Your task to perform on an android device: find snoozed emails in the gmail app Image 0: 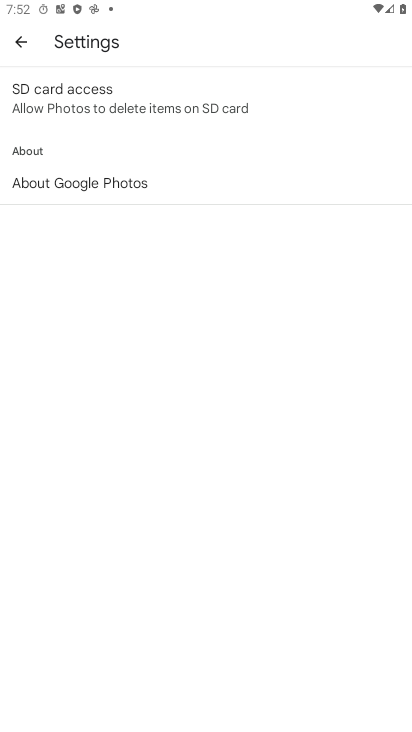
Step 0: press home button
Your task to perform on an android device: find snoozed emails in the gmail app Image 1: 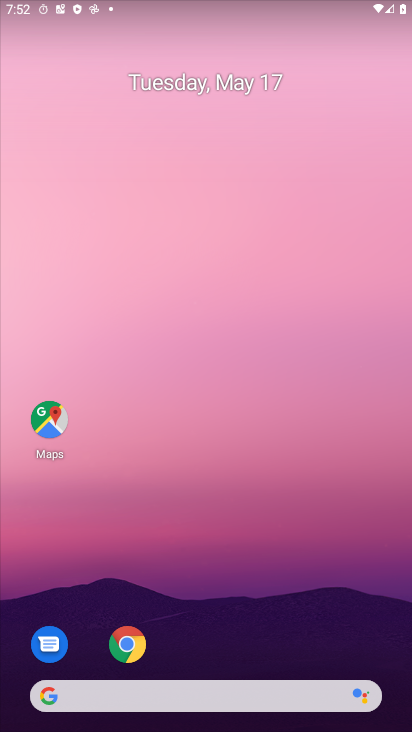
Step 1: drag from (336, 627) to (200, 64)
Your task to perform on an android device: find snoozed emails in the gmail app Image 2: 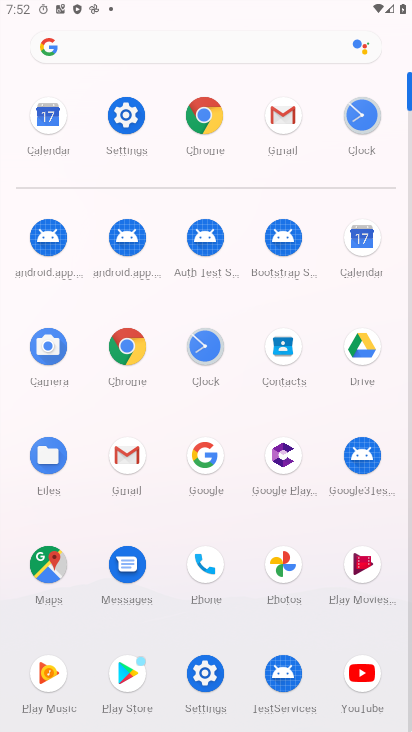
Step 2: click (131, 463)
Your task to perform on an android device: find snoozed emails in the gmail app Image 3: 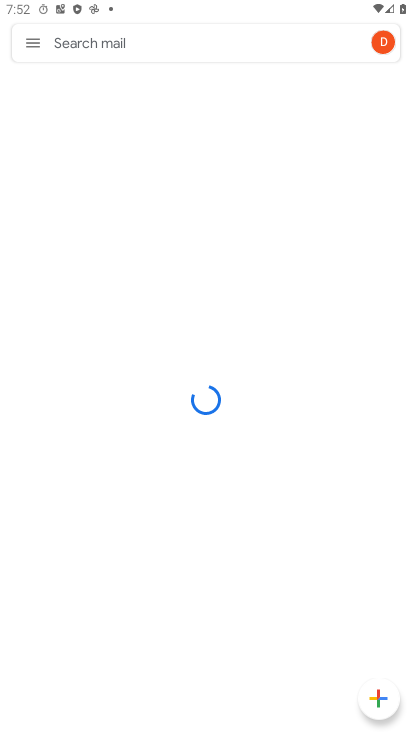
Step 3: click (34, 48)
Your task to perform on an android device: find snoozed emails in the gmail app Image 4: 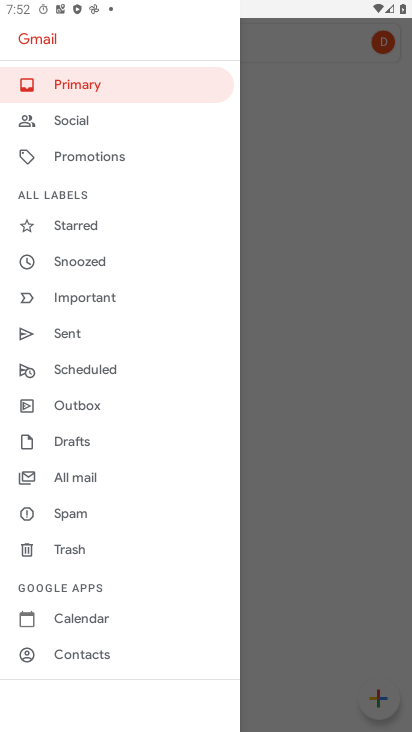
Step 4: click (100, 269)
Your task to perform on an android device: find snoozed emails in the gmail app Image 5: 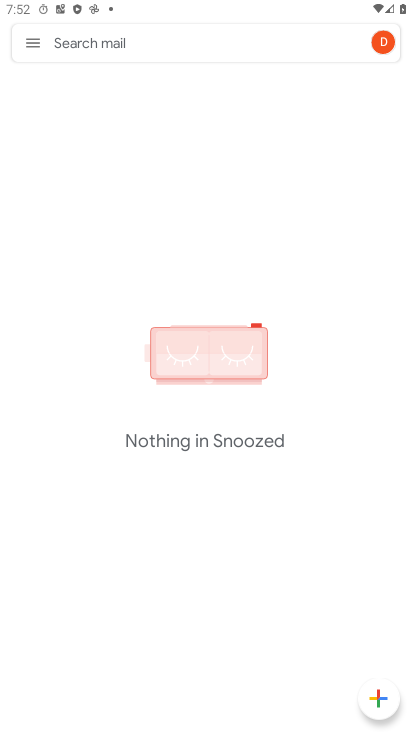
Step 5: task complete